Your task to perform on an android device: What does the iPhone 8 look like on eBay? Image 0: 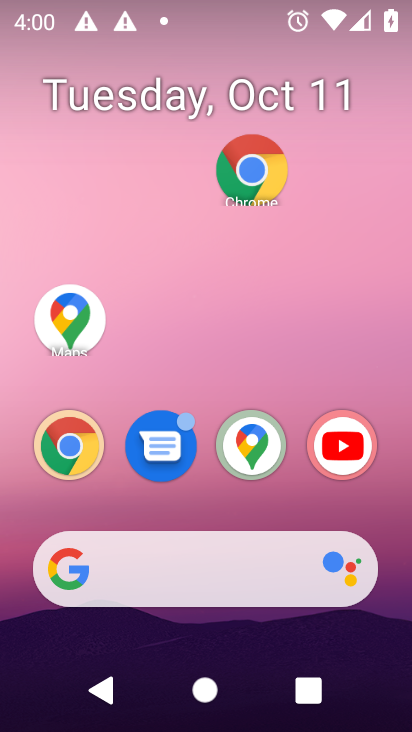
Step 0: click (250, 186)
Your task to perform on an android device: What does the iPhone 8 look like on eBay? Image 1: 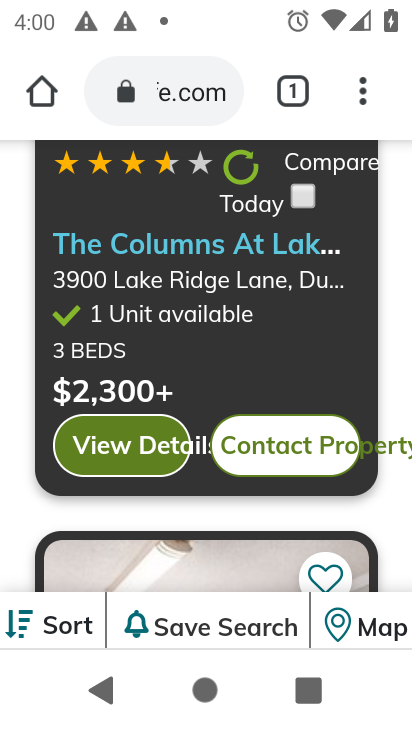
Step 1: click (191, 101)
Your task to perform on an android device: What does the iPhone 8 look like on eBay? Image 2: 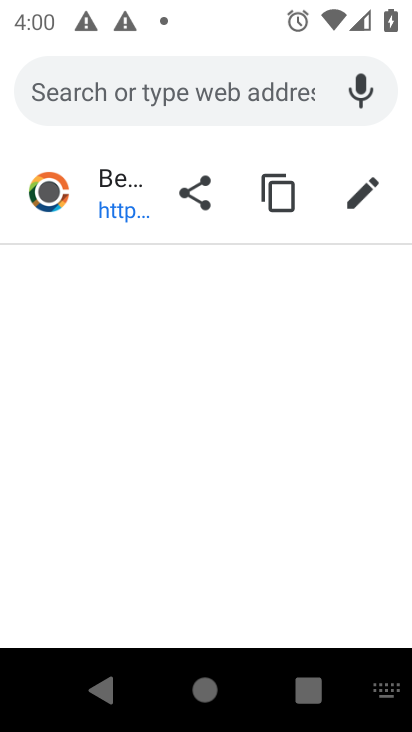
Step 2: type "iPhone 8 look like on eBay"
Your task to perform on an android device: What does the iPhone 8 look like on eBay? Image 3: 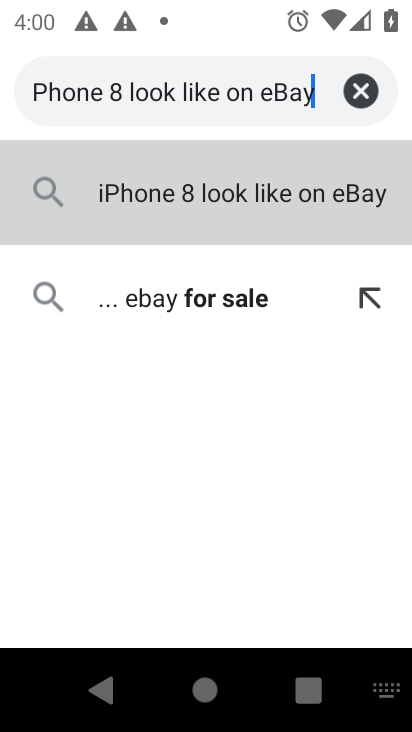
Step 3: click (156, 206)
Your task to perform on an android device: What does the iPhone 8 look like on eBay? Image 4: 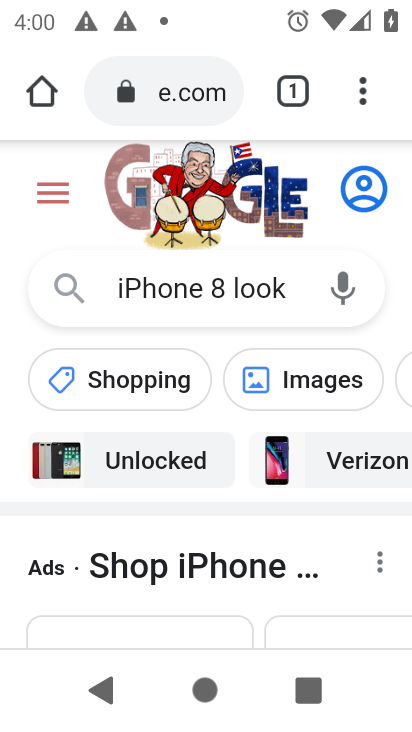
Step 4: drag from (124, 535) to (126, 178)
Your task to perform on an android device: What does the iPhone 8 look like on eBay? Image 5: 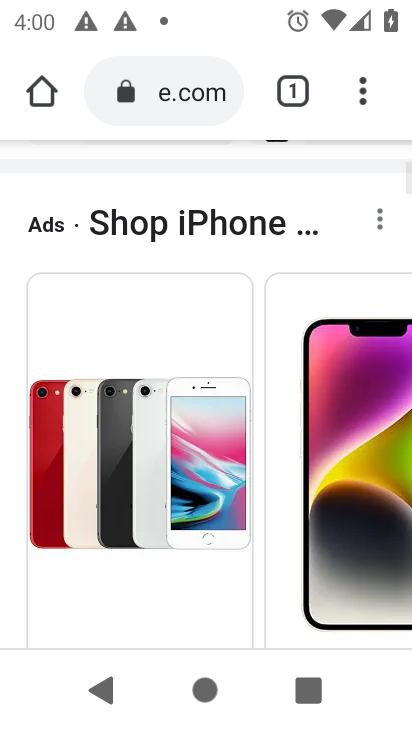
Step 5: drag from (111, 514) to (113, 274)
Your task to perform on an android device: What does the iPhone 8 look like on eBay? Image 6: 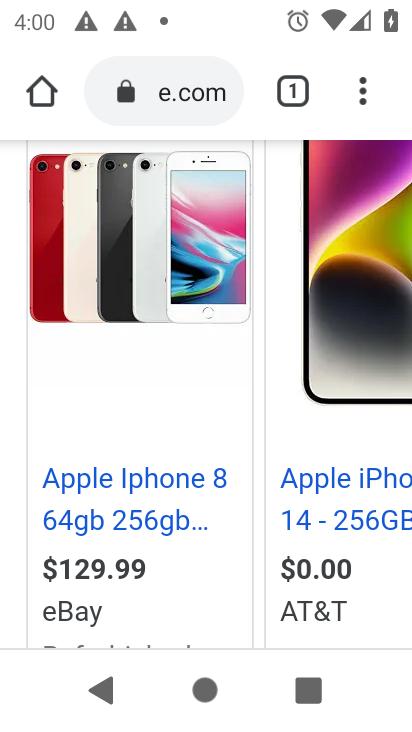
Step 6: click (112, 282)
Your task to perform on an android device: What does the iPhone 8 look like on eBay? Image 7: 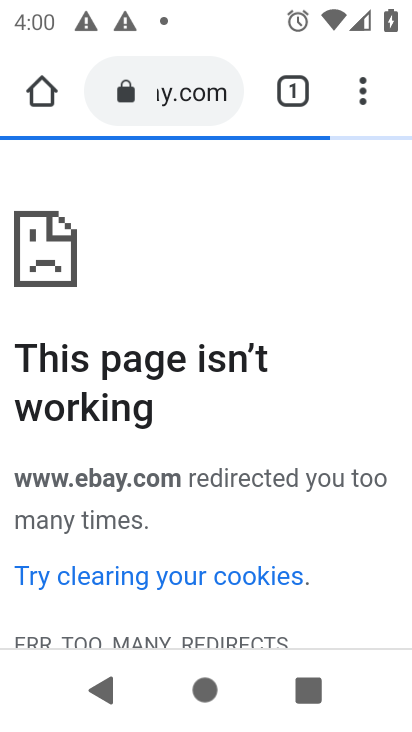
Step 7: task complete